Your task to perform on an android device: turn on airplane mode Image 0: 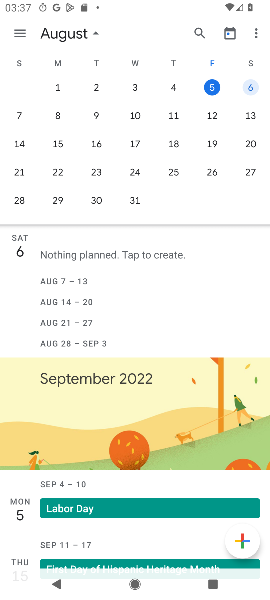
Step 0: press home button
Your task to perform on an android device: turn on airplane mode Image 1: 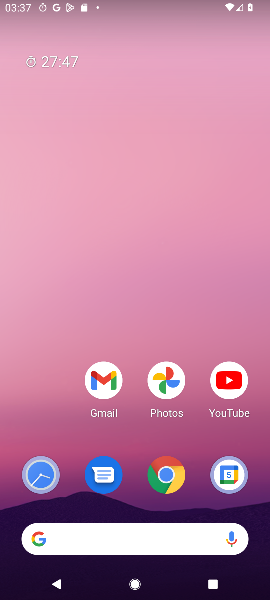
Step 1: drag from (67, 441) to (56, 191)
Your task to perform on an android device: turn on airplane mode Image 2: 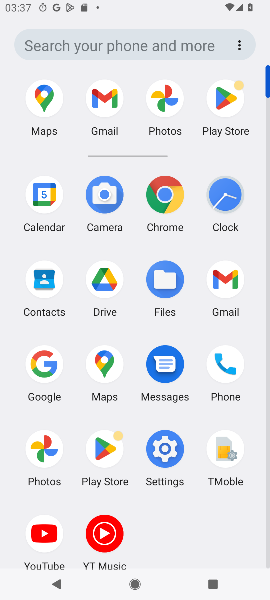
Step 2: click (167, 452)
Your task to perform on an android device: turn on airplane mode Image 3: 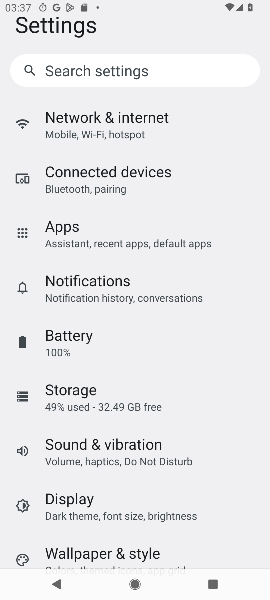
Step 3: drag from (224, 530) to (237, 400)
Your task to perform on an android device: turn on airplane mode Image 4: 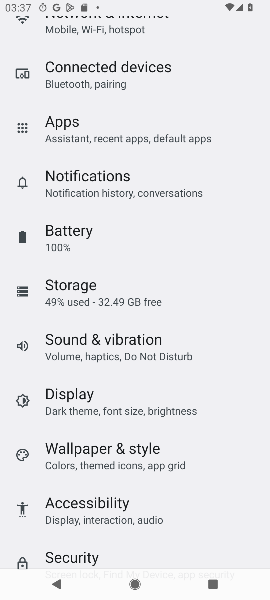
Step 4: drag from (199, 504) to (204, 419)
Your task to perform on an android device: turn on airplane mode Image 5: 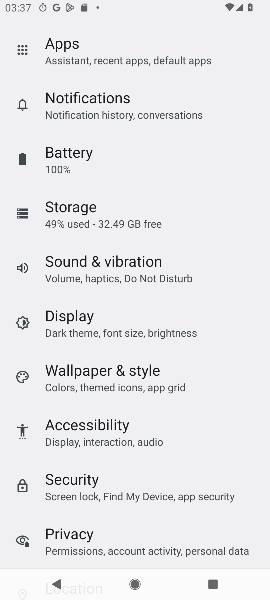
Step 5: drag from (227, 454) to (216, 351)
Your task to perform on an android device: turn on airplane mode Image 6: 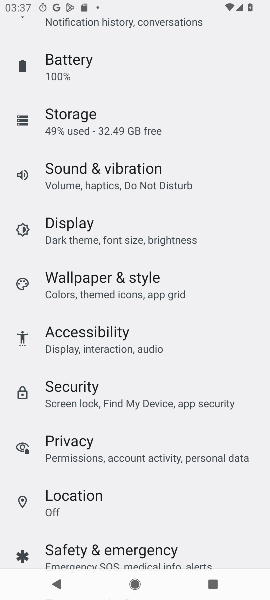
Step 6: drag from (216, 284) to (219, 400)
Your task to perform on an android device: turn on airplane mode Image 7: 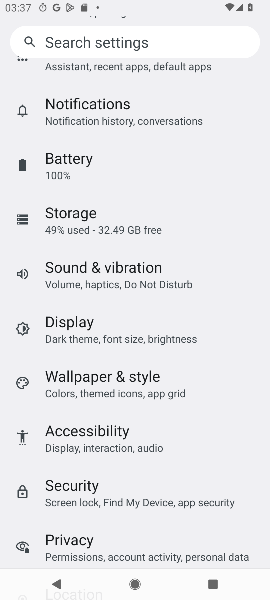
Step 7: drag from (218, 275) to (232, 369)
Your task to perform on an android device: turn on airplane mode Image 8: 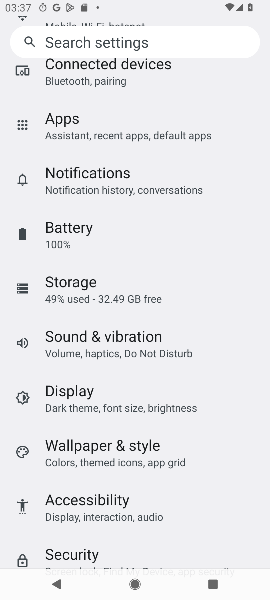
Step 8: drag from (225, 249) to (241, 364)
Your task to perform on an android device: turn on airplane mode Image 9: 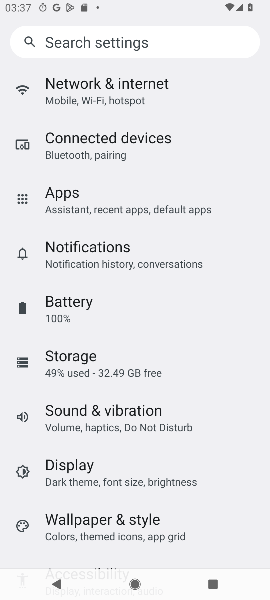
Step 9: drag from (223, 219) to (240, 373)
Your task to perform on an android device: turn on airplane mode Image 10: 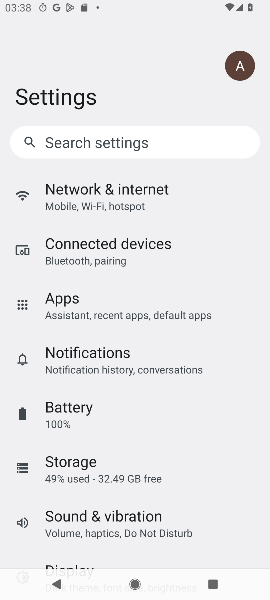
Step 10: click (180, 197)
Your task to perform on an android device: turn on airplane mode Image 11: 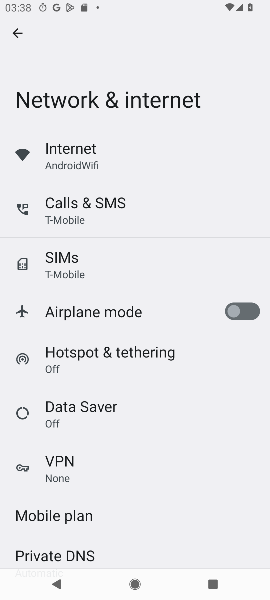
Step 11: click (247, 311)
Your task to perform on an android device: turn on airplane mode Image 12: 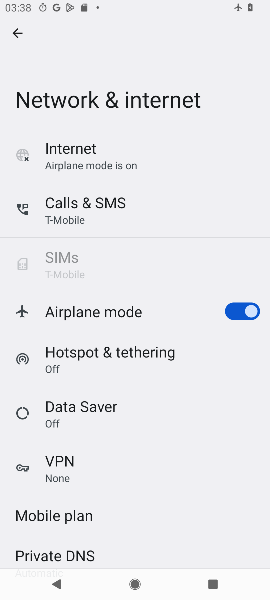
Step 12: task complete